Your task to perform on an android device: toggle wifi Image 0: 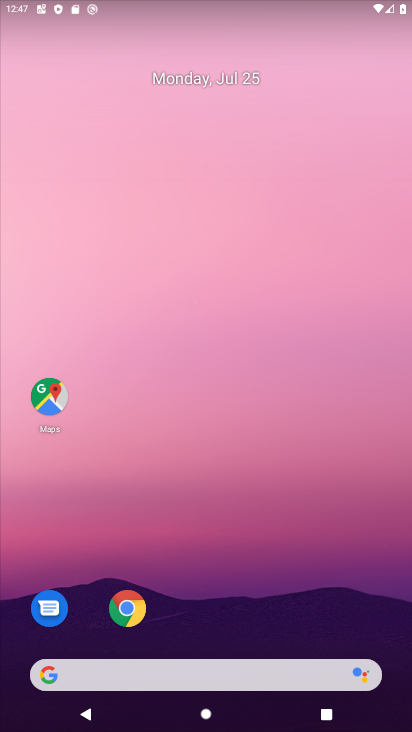
Step 0: drag from (194, 552) to (221, 0)
Your task to perform on an android device: toggle wifi Image 1: 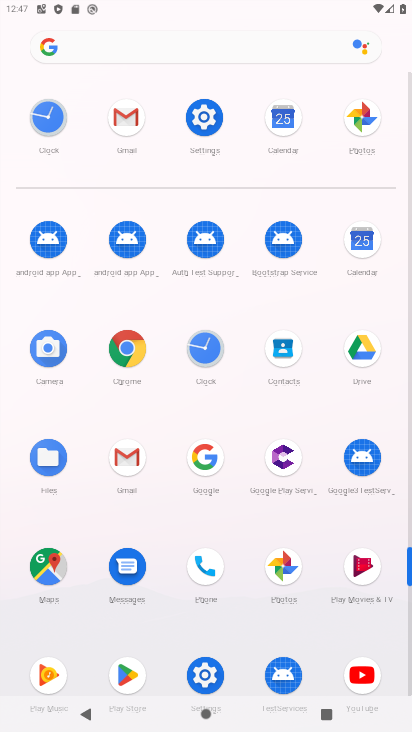
Step 1: click (192, 113)
Your task to perform on an android device: toggle wifi Image 2: 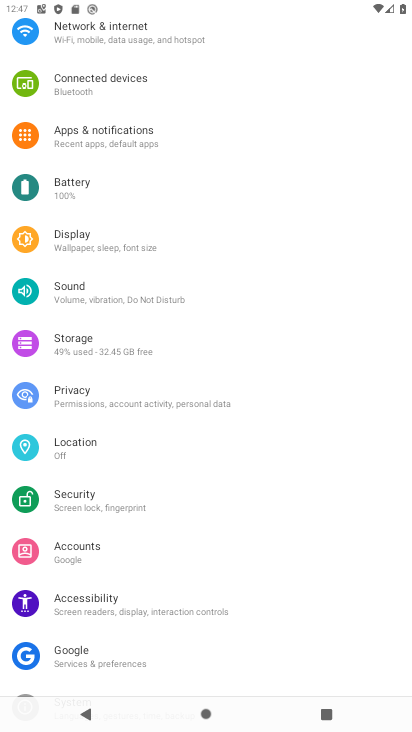
Step 2: click (130, 38)
Your task to perform on an android device: toggle wifi Image 3: 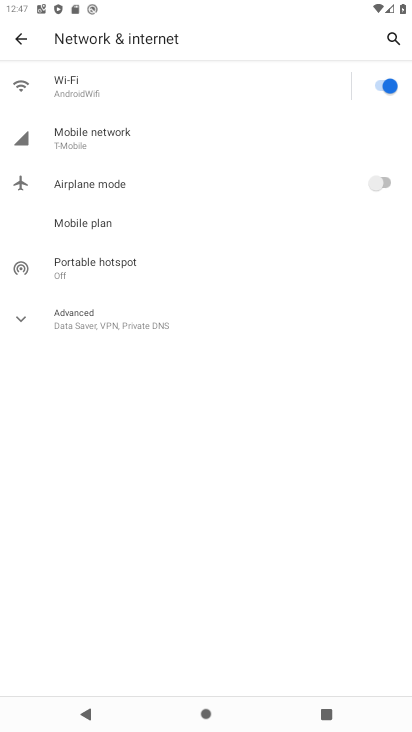
Step 3: click (389, 94)
Your task to perform on an android device: toggle wifi Image 4: 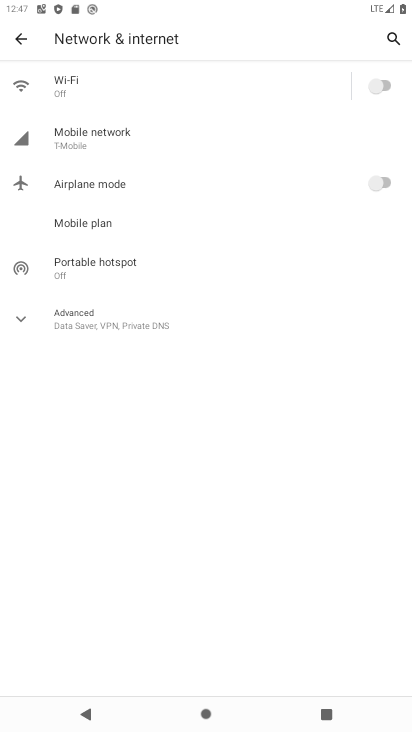
Step 4: task complete